Your task to perform on an android device: Go to Amazon Image 0: 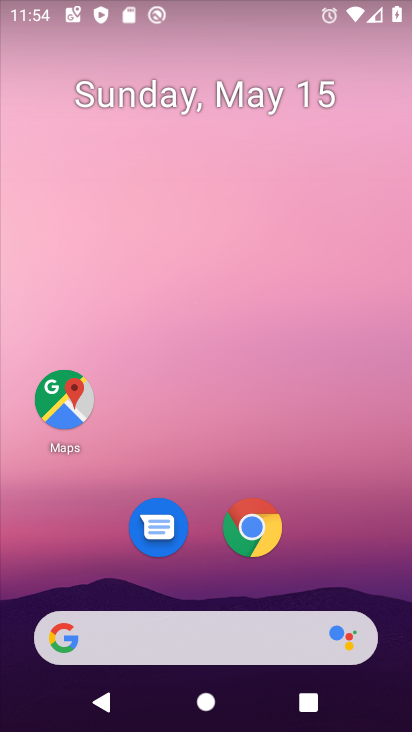
Step 0: click (283, 554)
Your task to perform on an android device: Go to Amazon Image 1: 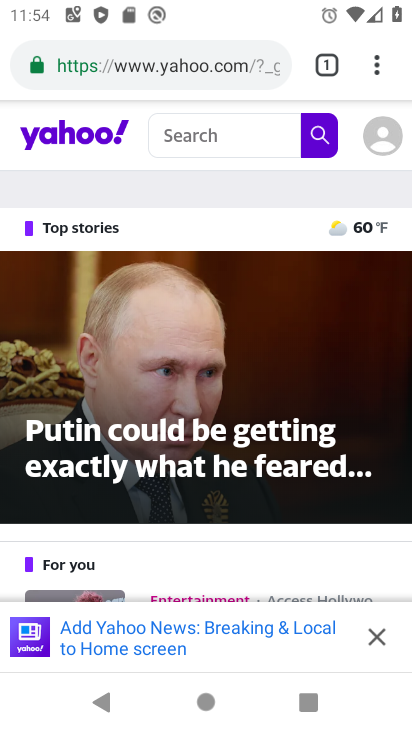
Step 1: click (377, 70)
Your task to perform on an android device: Go to Amazon Image 2: 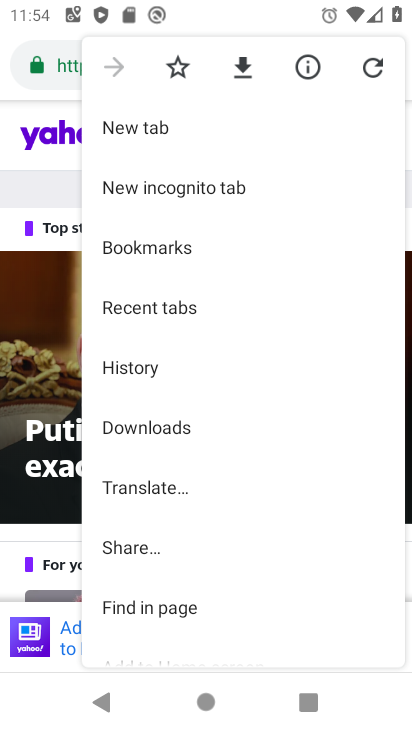
Step 2: drag from (227, 558) to (247, 293)
Your task to perform on an android device: Go to Amazon Image 3: 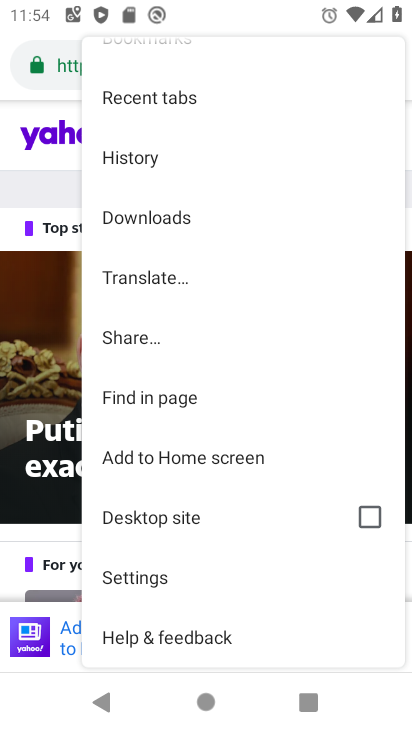
Step 3: click (200, 582)
Your task to perform on an android device: Go to Amazon Image 4: 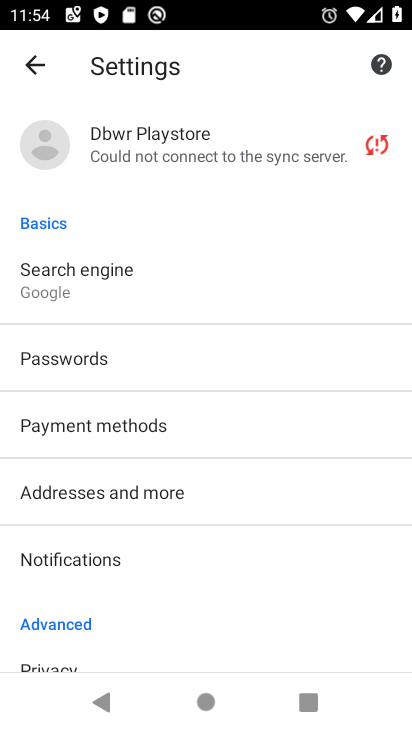
Step 4: click (31, 73)
Your task to perform on an android device: Go to Amazon Image 5: 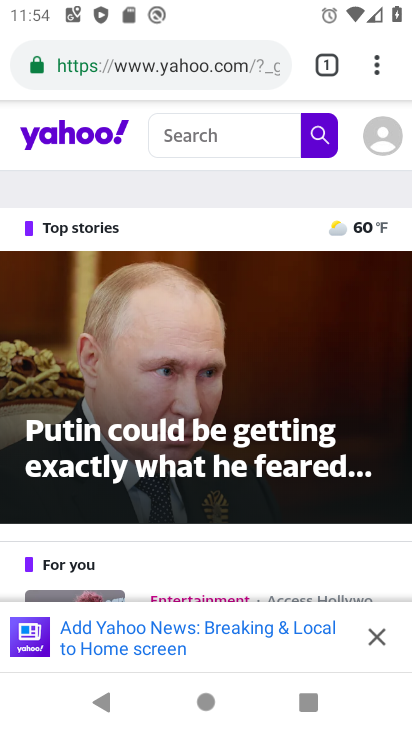
Step 5: click (316, 69)
Your task to perform on an android device: Go to Amazon Image 6: 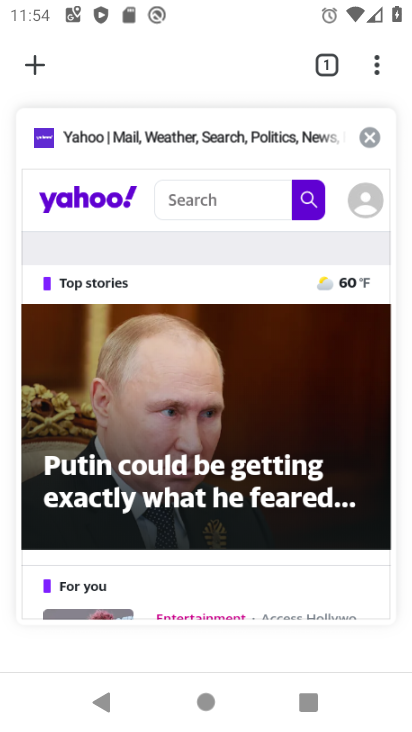
Step 6: click (32, 71)
Your task to perform on an android device: Go to Amazon Image 7: 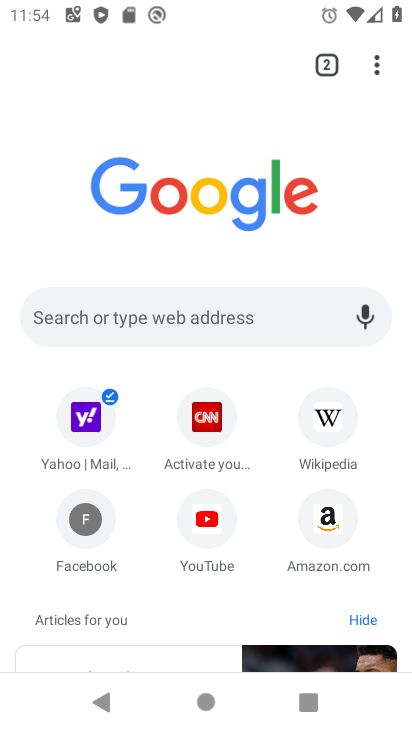
Step 7: click (319, 497)
Your task to perform on an android device: Go to Amazon Image 8: 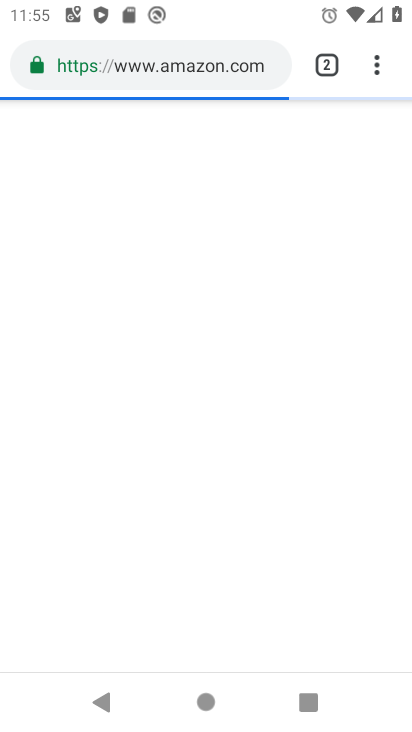
Step 8: task complete